Your task to perform on an android device: refresh tabs in the chrome app Image 0: 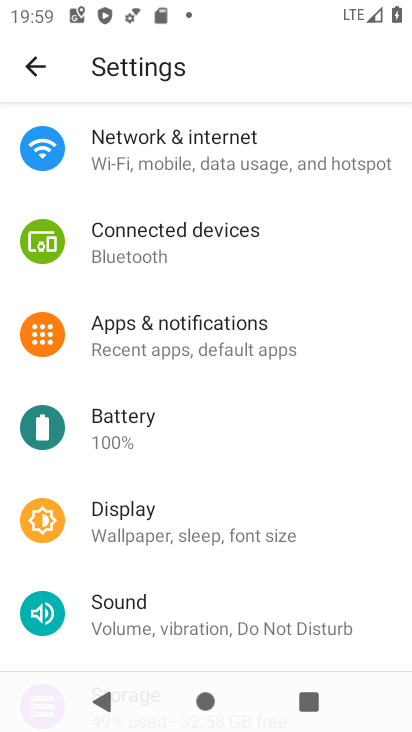
Step 0: press home button
Your task to perform on an android device: refresh tabs in the chrome app Image 1: 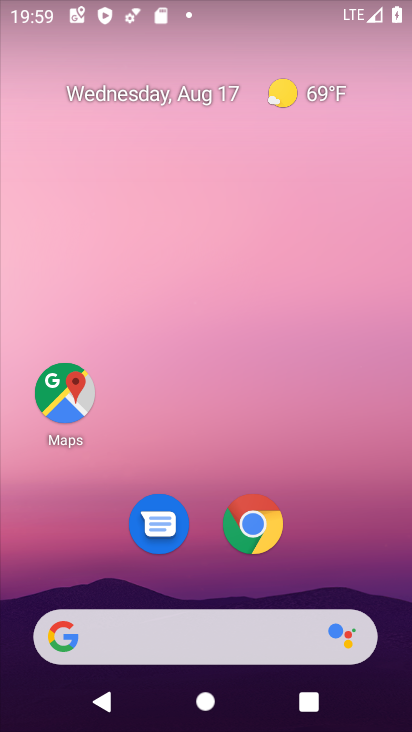
Step 1: drag from (316, 526) to (316, 423)
Your task to perform on an android device: refresh tabs in the chrome app Image 2: 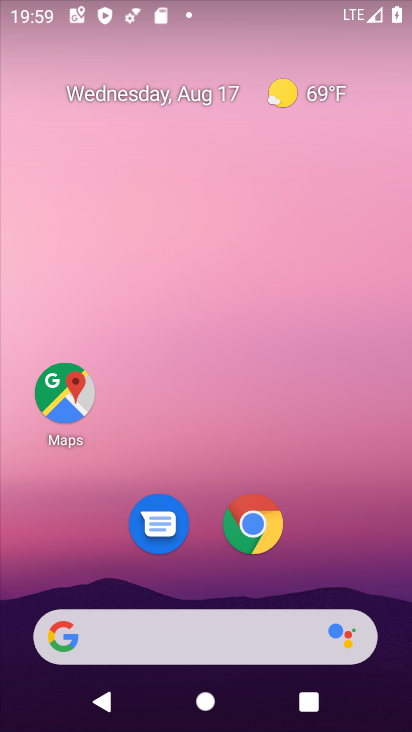
Step 2: click (258, 523)
Your task to perform on an android device: refresh tabs in the chrome app Image 3: 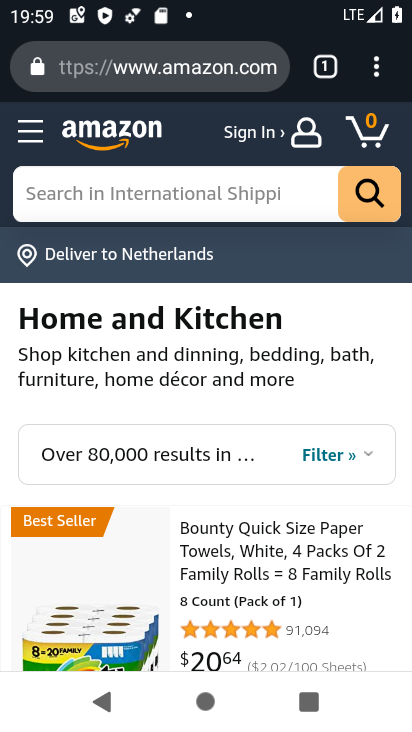
Step 3: click (378, 68)
Your task to perform on an android device: refresh tabs in the chrome app Image 4: 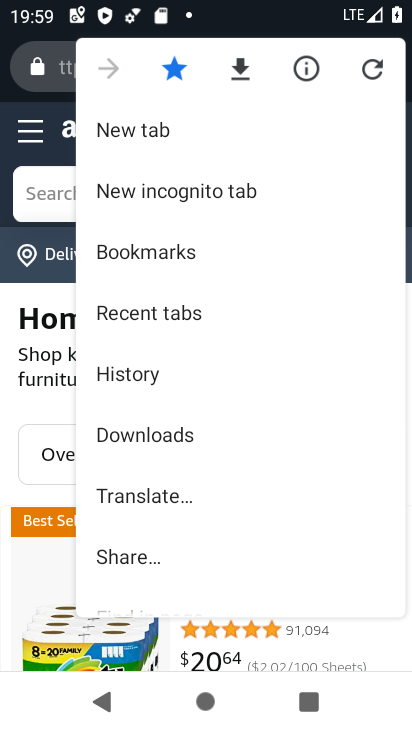
Step 4: click (370, 62)
Your task to perform on an android device: refresh tabs in the chrome app Image 5: 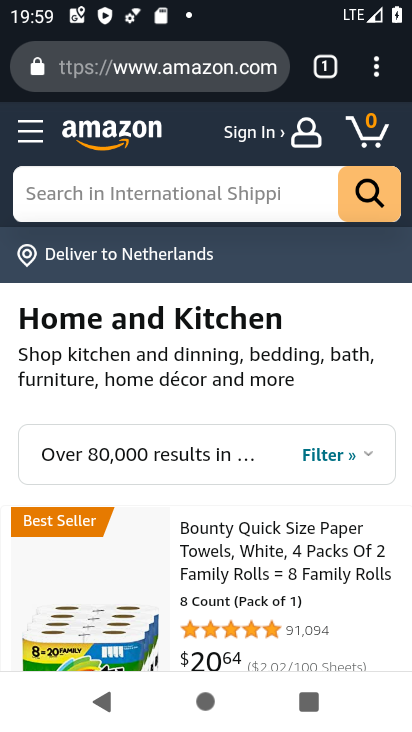
Step 5: task complete